Your task to perform on an android device: Set an alarm for 10am Image 0: 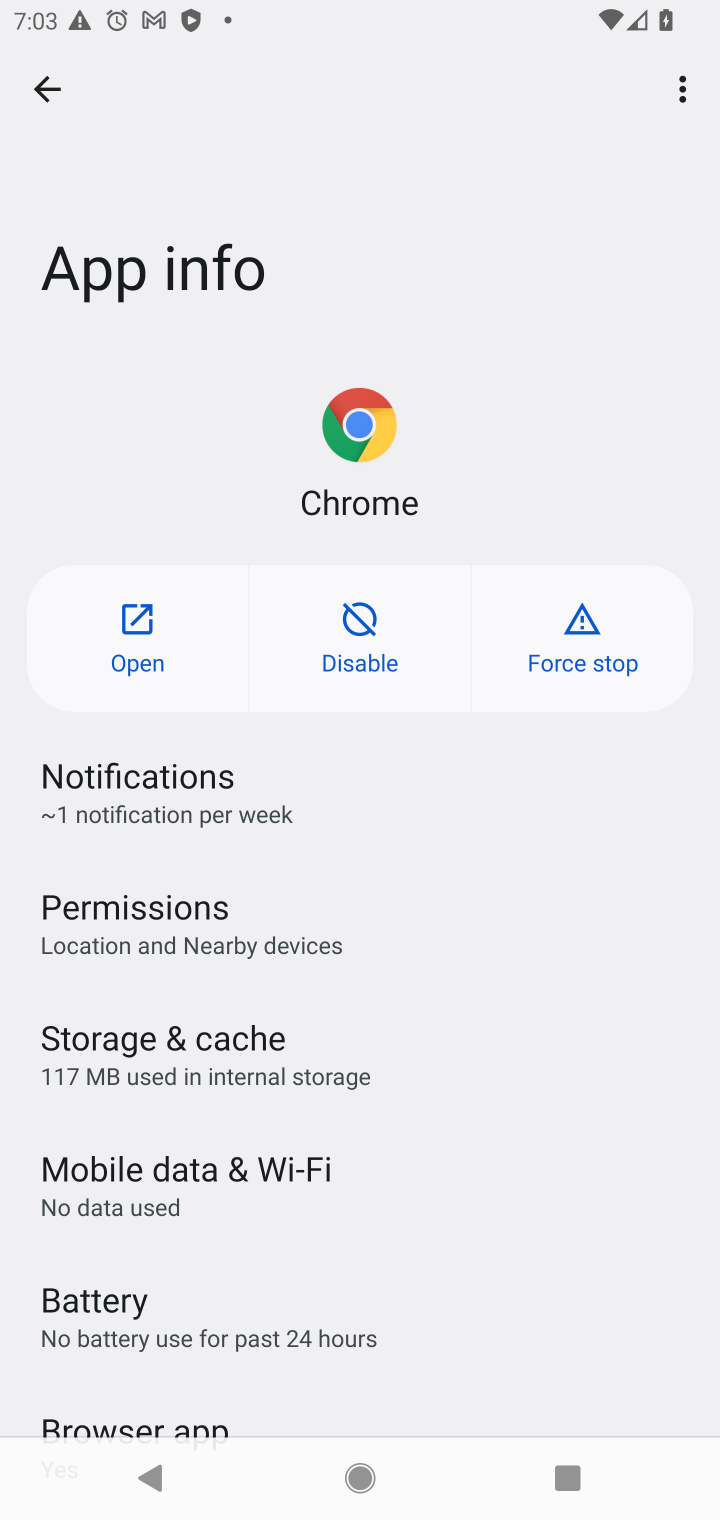
Step 0: press home button
Your task to perform on an android device: Set an alarm for 10am Image 1: 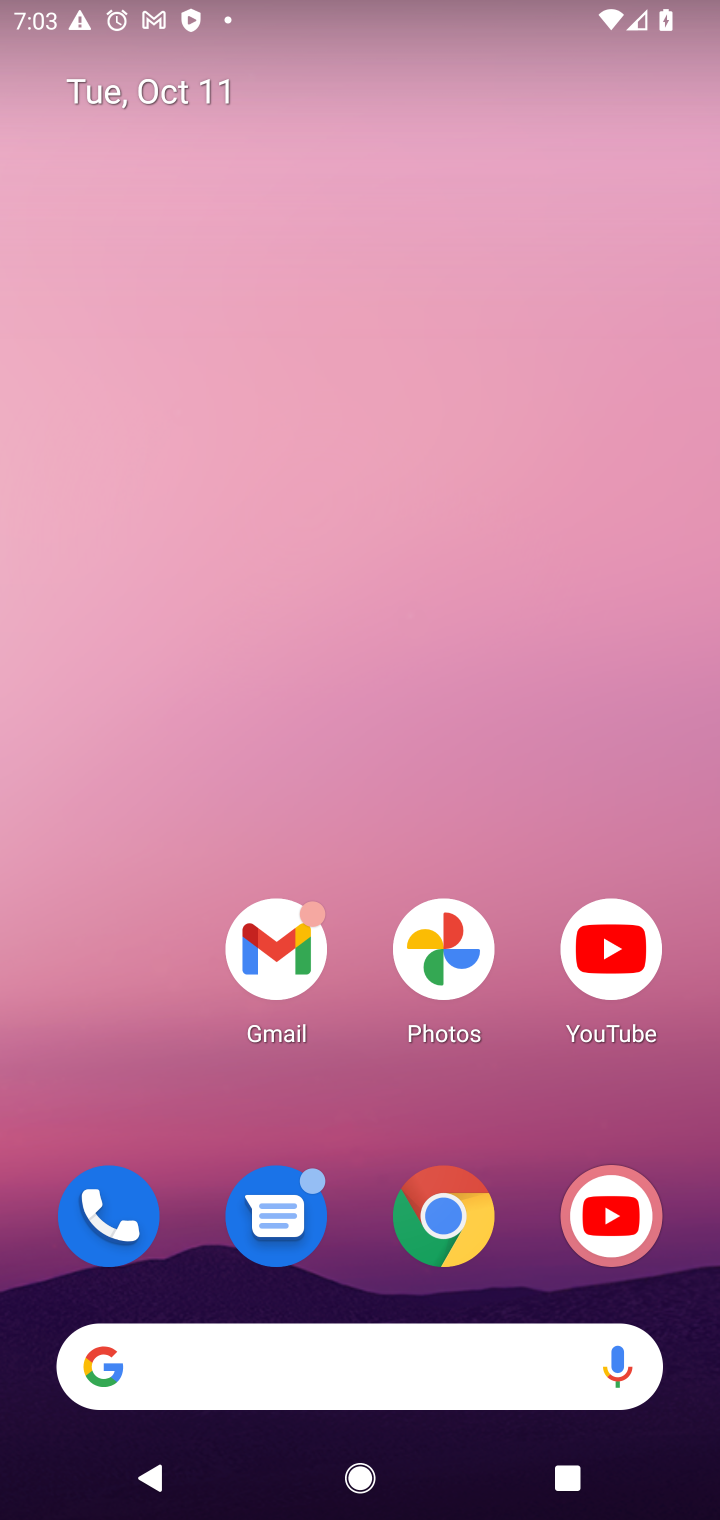
Step 1: drag from (425, 1340) to (426, 347)
Your task to perform on an android device: Set an alarm for 10am Image 2: 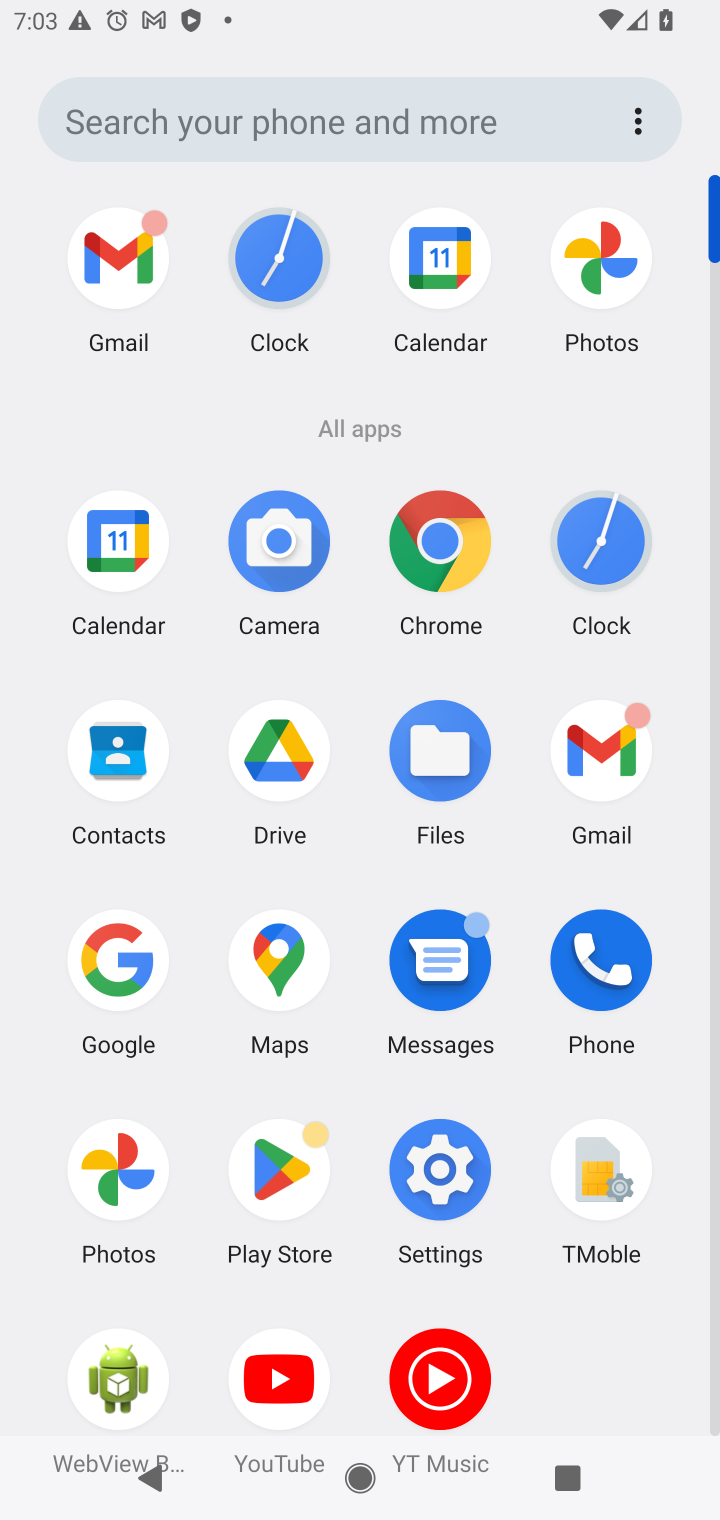
Step 2: click (570, 544)
Your task to perform on an android device: Set an alarm for 10am Image 3: 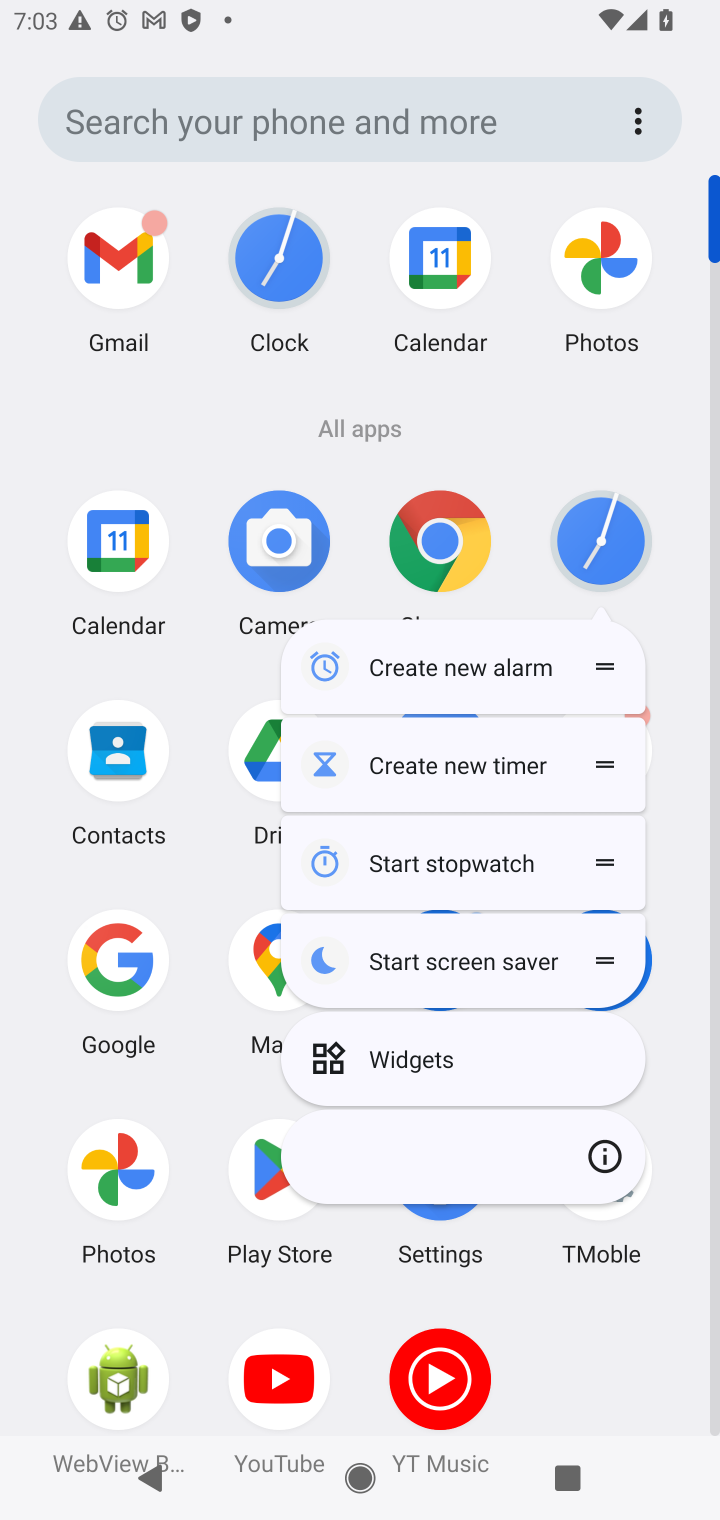
Step 3: click (615, 552)
Your task to perform on an android device: Set an alarm for 10am Image 4: 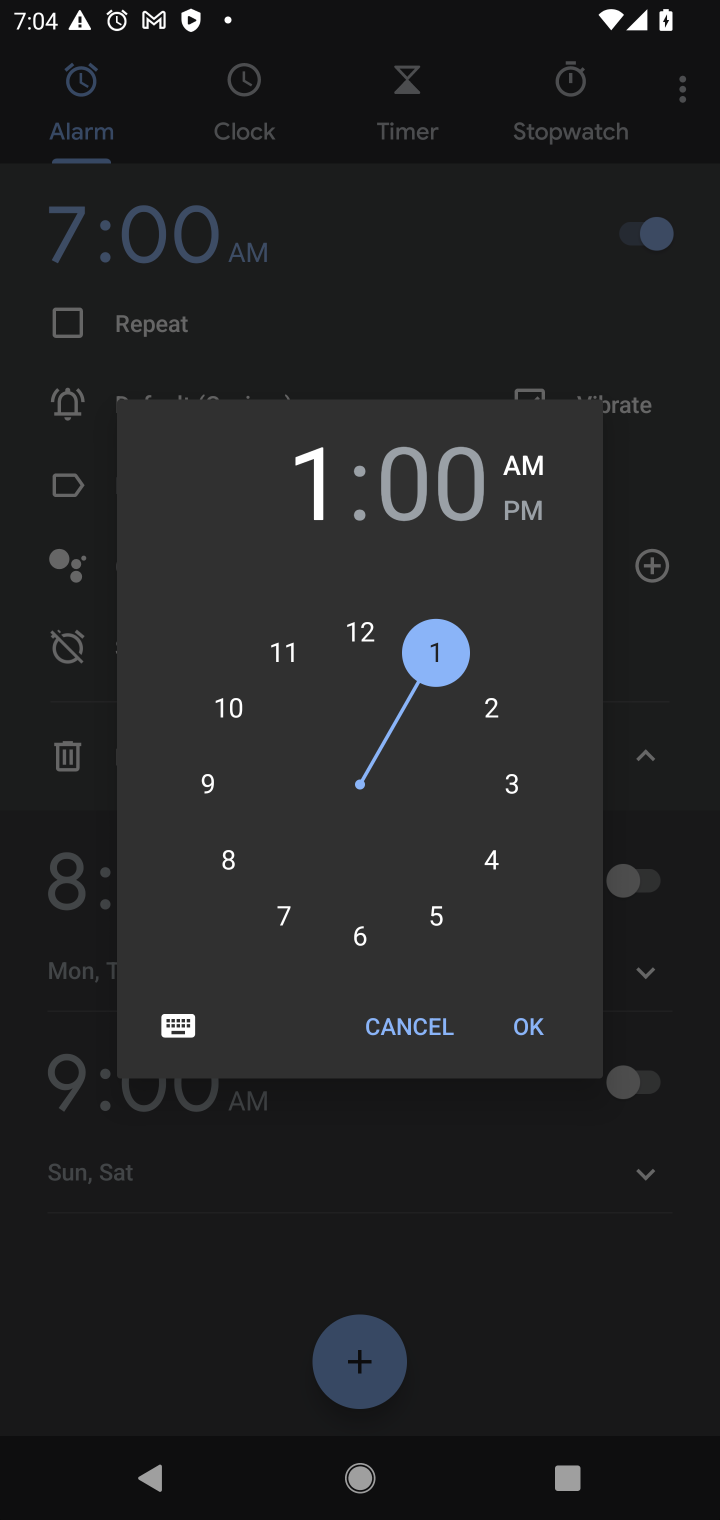
Step 4: click (232, 706)
Your task to perform on an android device: Set an alarm for 10am Image 5: 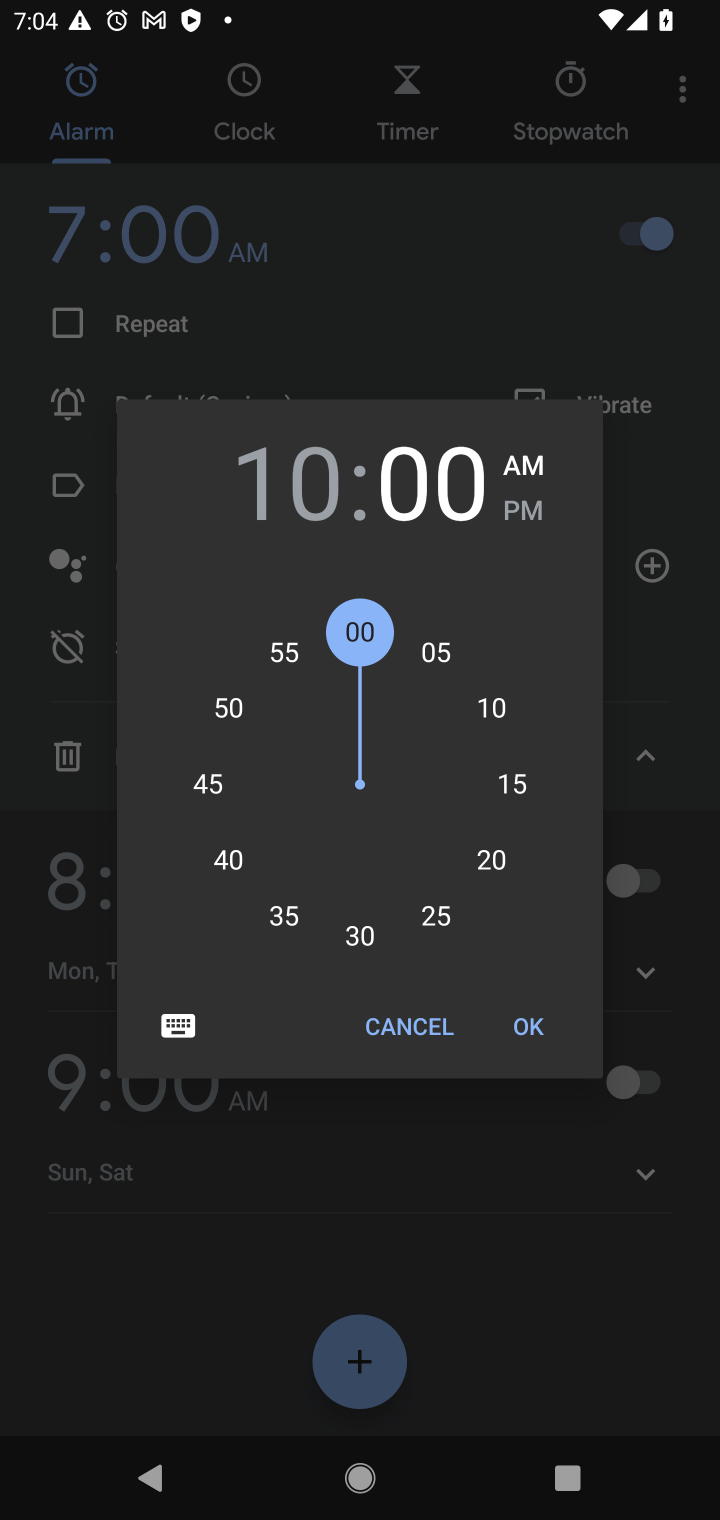
Step 5: click (516, 1037)
Your task to perform on an android device: Set an alarm for 10am Image 6: 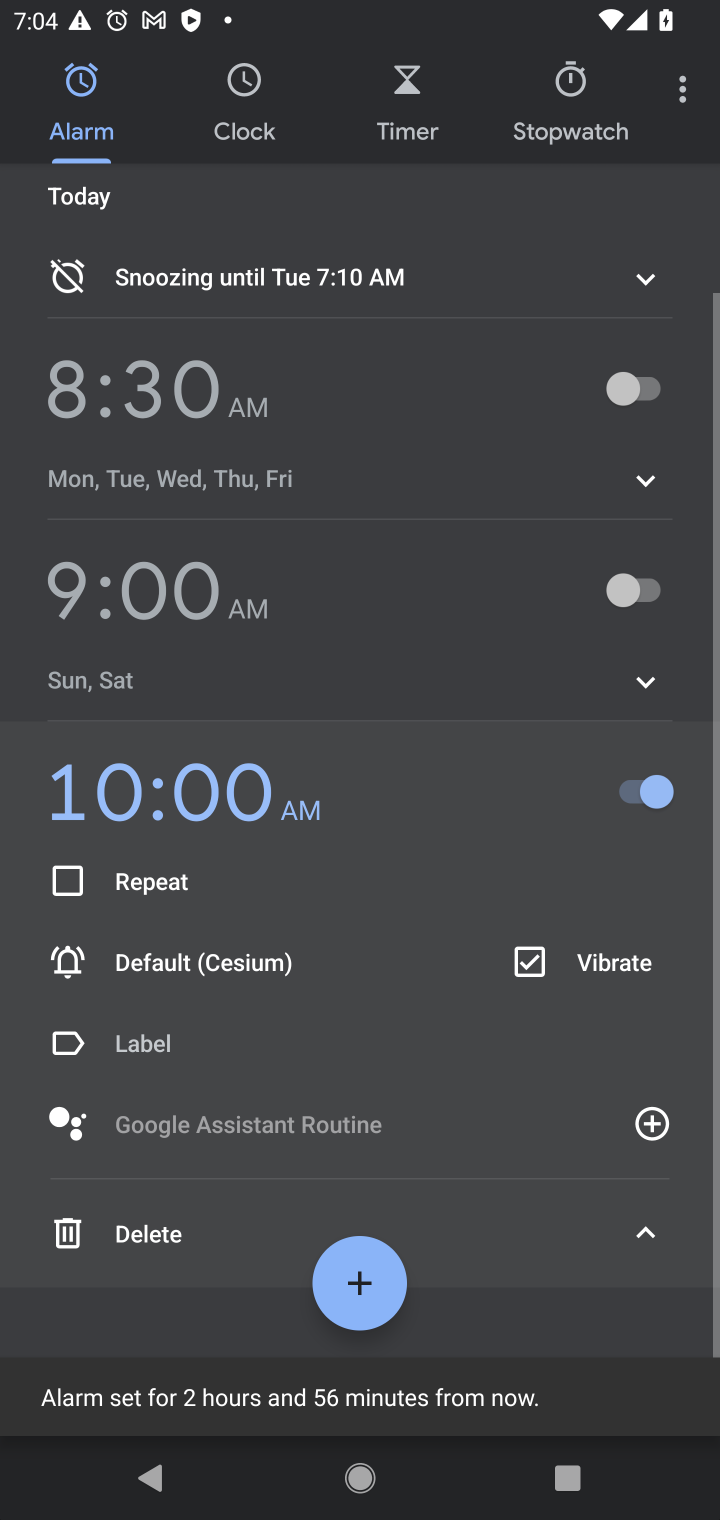
Step 6: task complete